Your task to perform on an android device: open wifi settings Image 0: 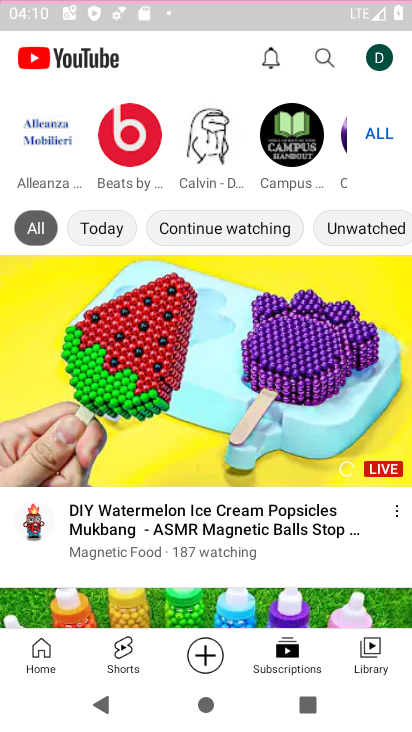
Step 0: press home button
Your task to perform on an android device: open wifi settings Image 1: 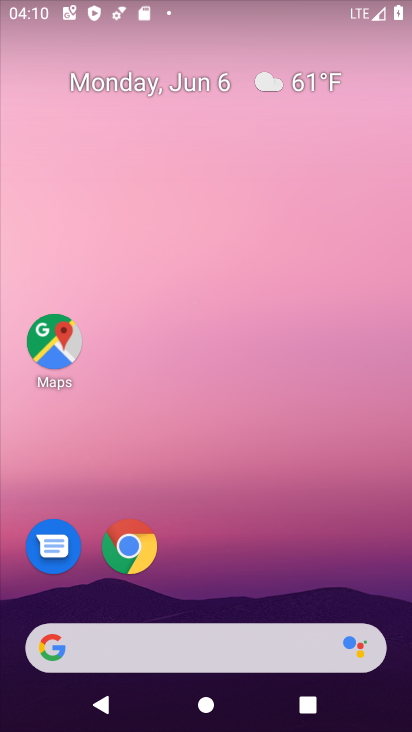
Step 1: drag from (258, 618) to (310, 199)
Your task to perform on an android device: open wifi settings Image 2: 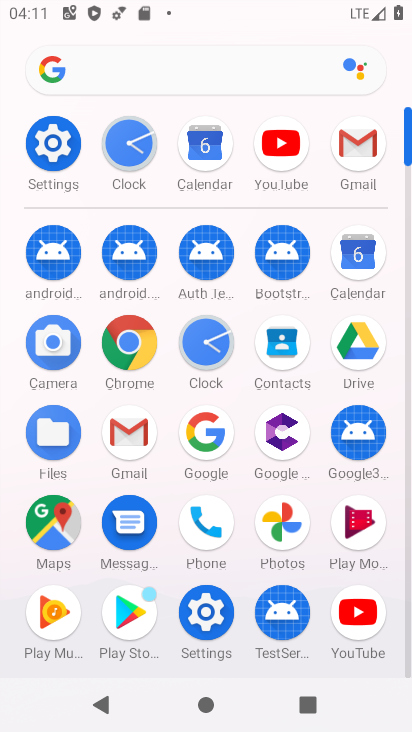
Step 2: click (58, 144)
Your task to perform on an android device: open wifi settings Image 3: 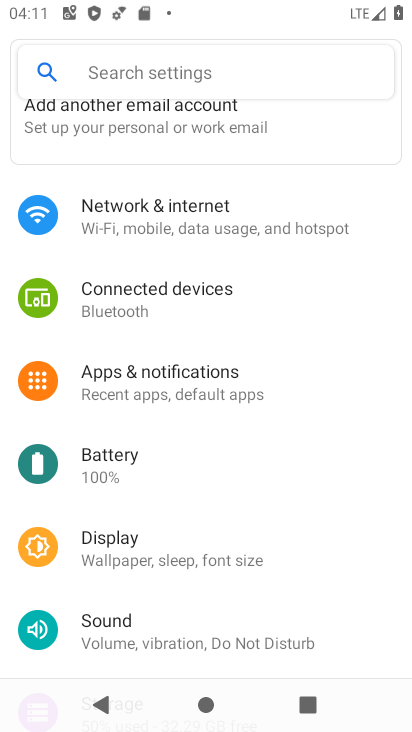
Step 3: click (159, 214)
Your task to perform on an android device: open wifi settings Image 4: 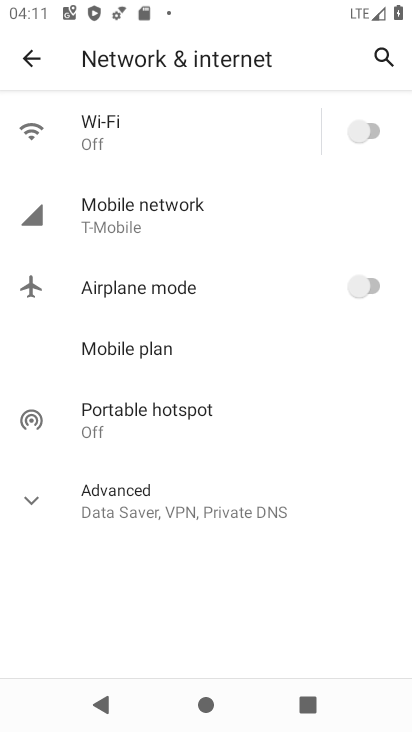
Step 4: click (96, 119)
Your task to perform on an android device: open wifi settings Image 5: 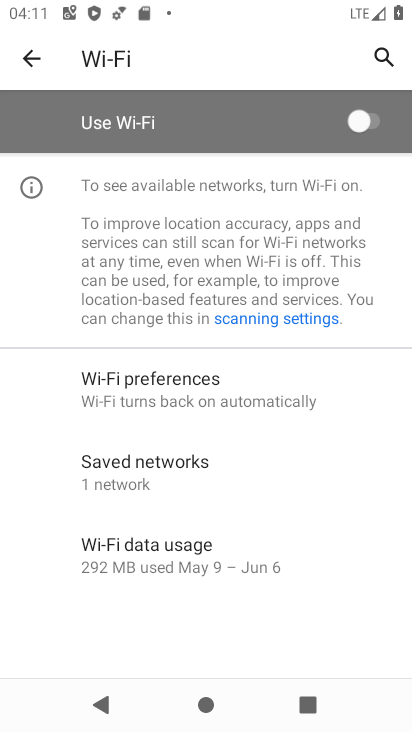
Step 5: task complete